Your task to perform on an android device: Set an alarm for 11am Image 0: 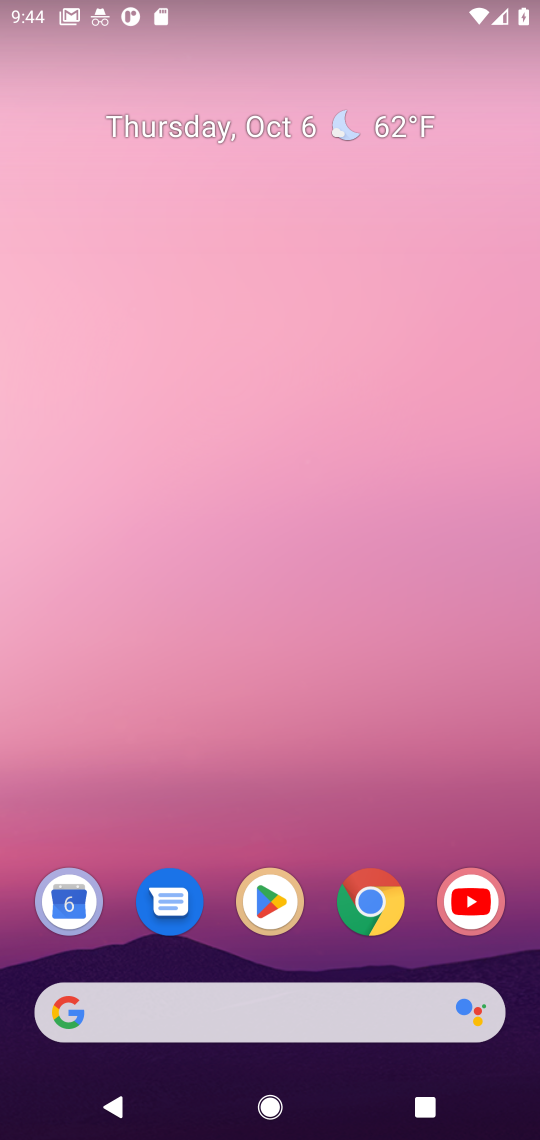
Step 0: press home button
Your task to perform on an android device: Set an alarm for 11am Image 1: 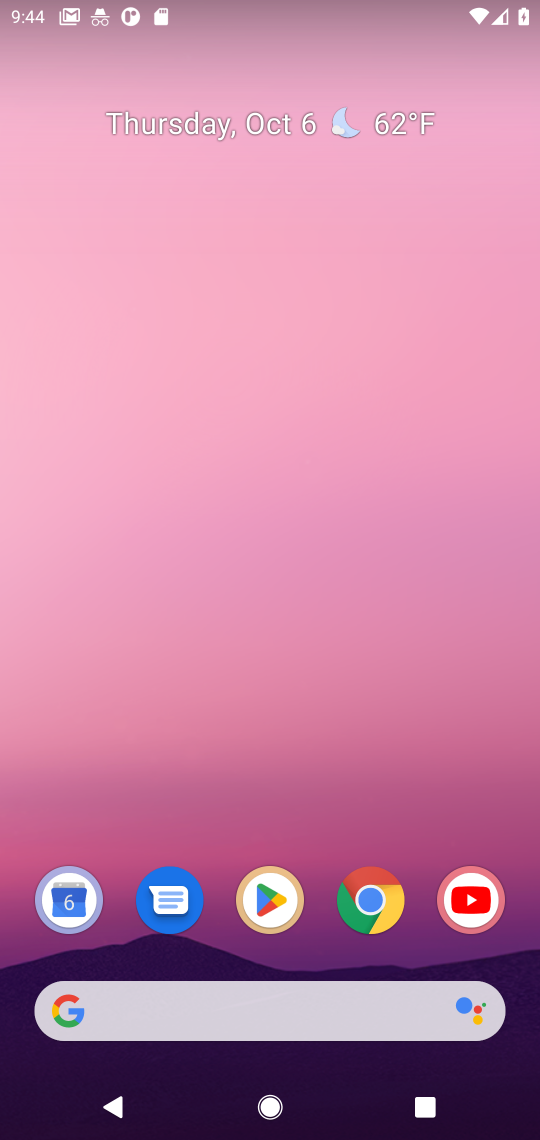
Step 1: drag from (436, 767) to (455, 94)
Your task to perform on an android device: Set an alarm for 11am Image 2: 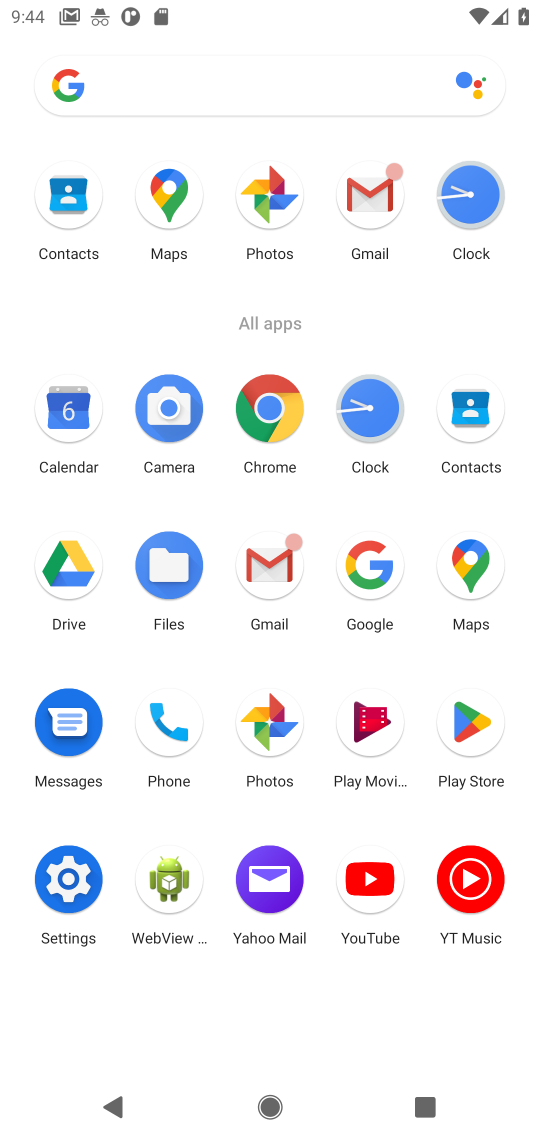
Step 2: click (372, 419)
Your task to perform on an android device: Set an alarm for 11am Image 3: 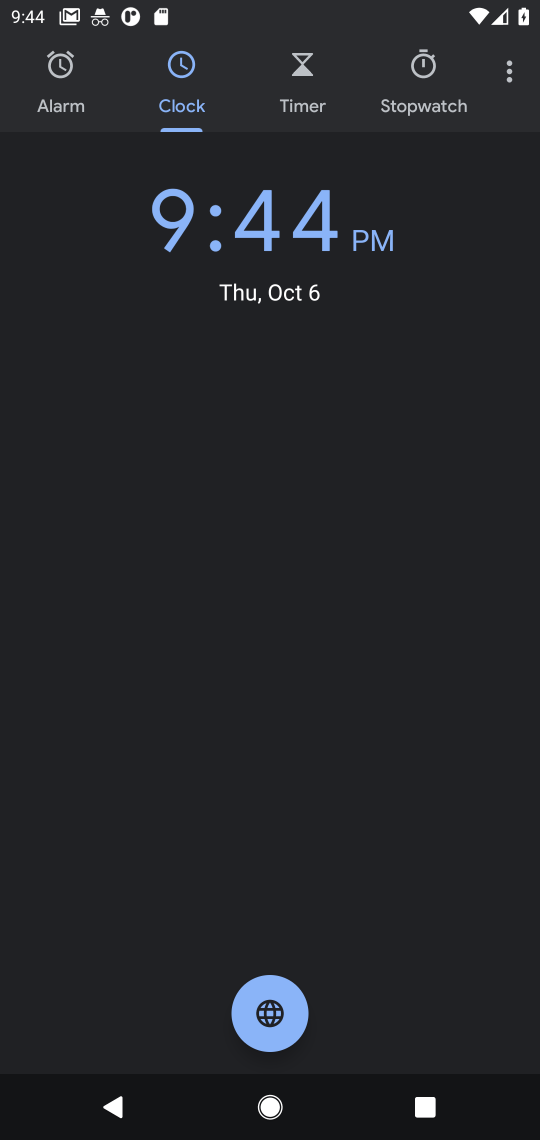
Step 3: click (69, 73)
Your task to perform on an android device: Set an alarm for 11am Image 4: 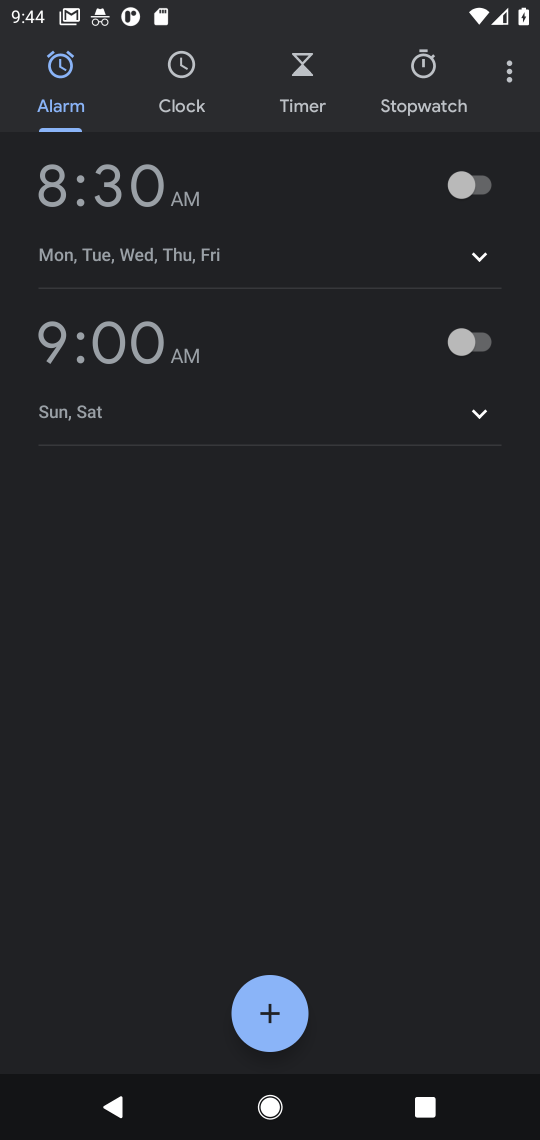
Step 4: click (254, 1021)
Your task to perform on an android device: Set an alarm for 11am Image 5: 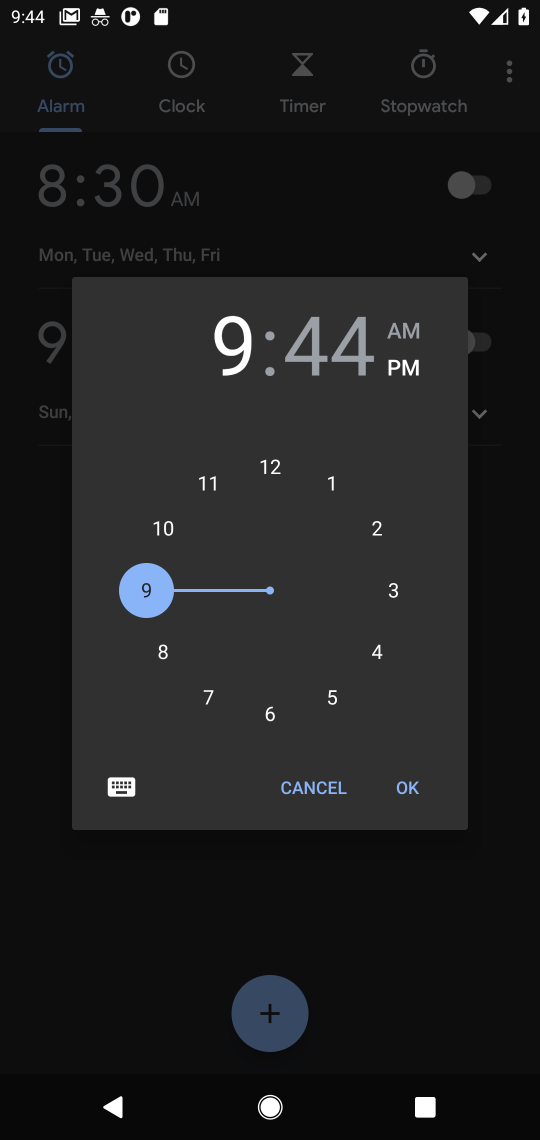
Step 5: click (211, 477)
Your task to perform on an android device: Set an alarm for 11am Image 6: 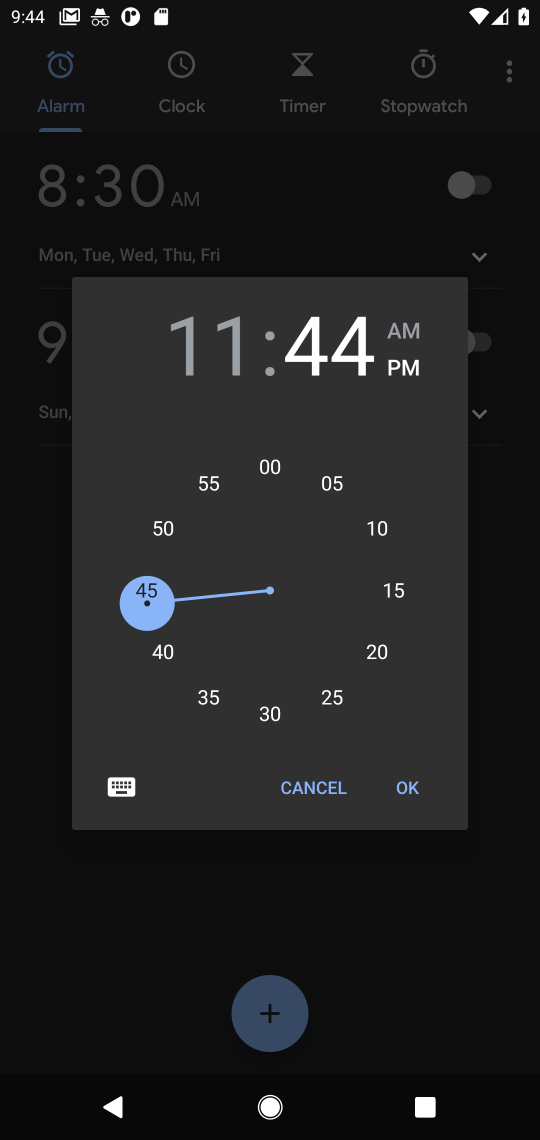
Step 6: click (410, 332)
Your task to perform on an android device: Set an alarm for 11am Image 7: 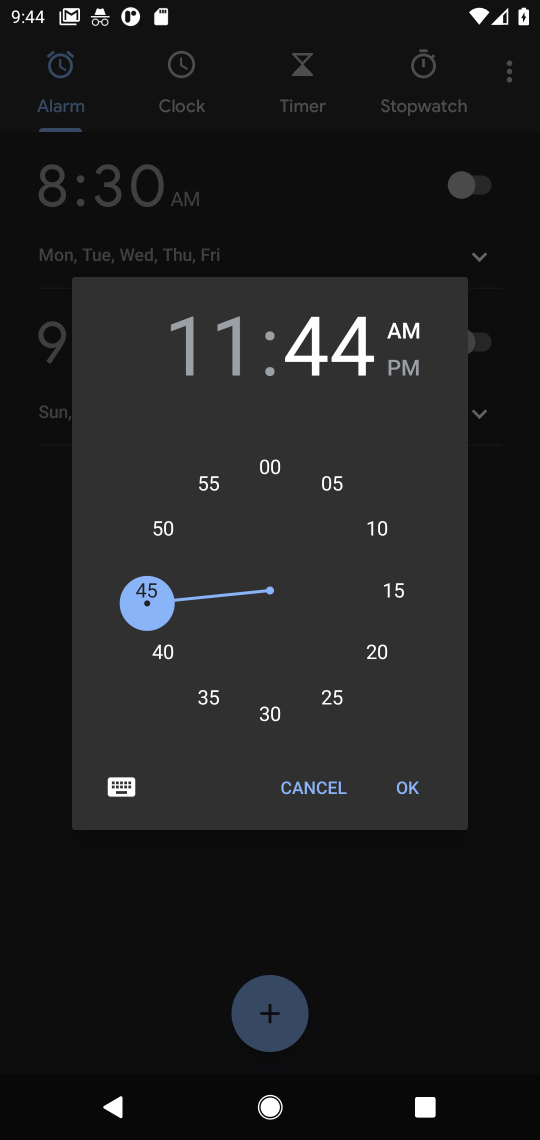
Step 7: click (268, 473)
Your task to perform on an android device: Set an alarm for 11am Image 8: 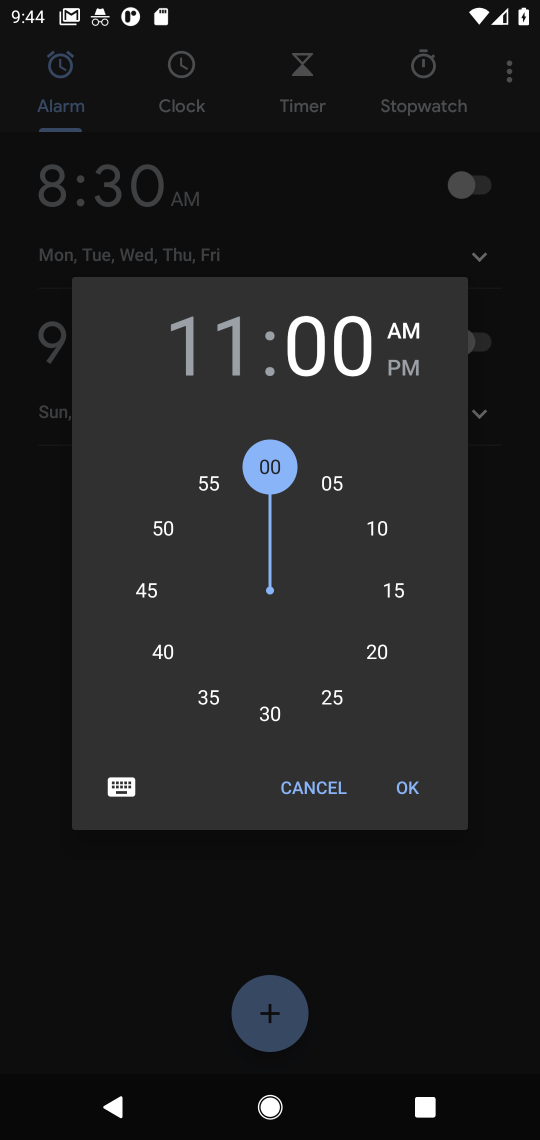
Step 8: click (417, 796)
Your task to perform on an android device: Set an alarm for 11am Image 9: 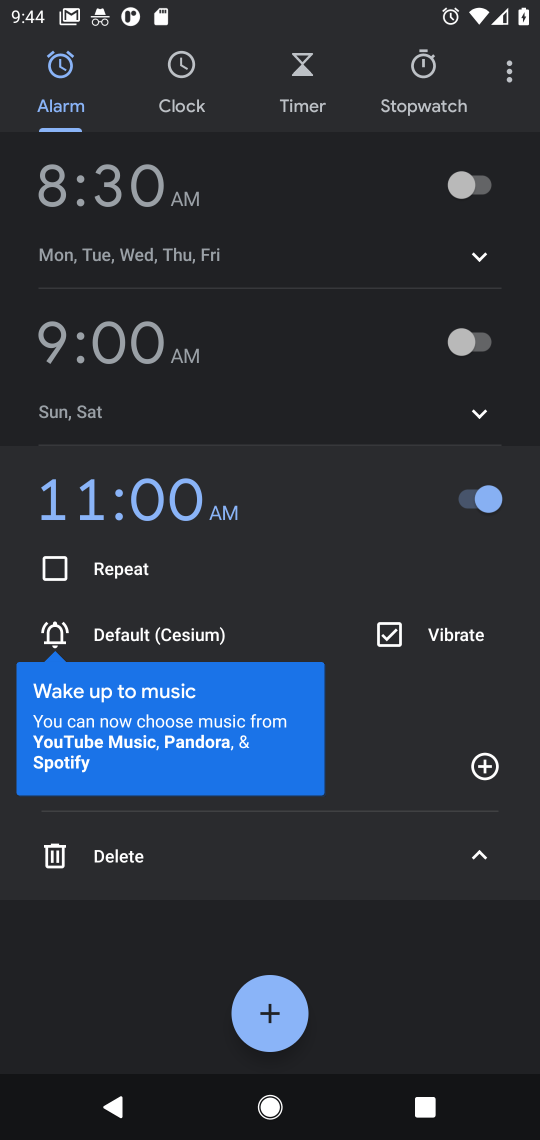
Step 9: task complete